Your task to perform on an android device: turn on wifi Image 0: 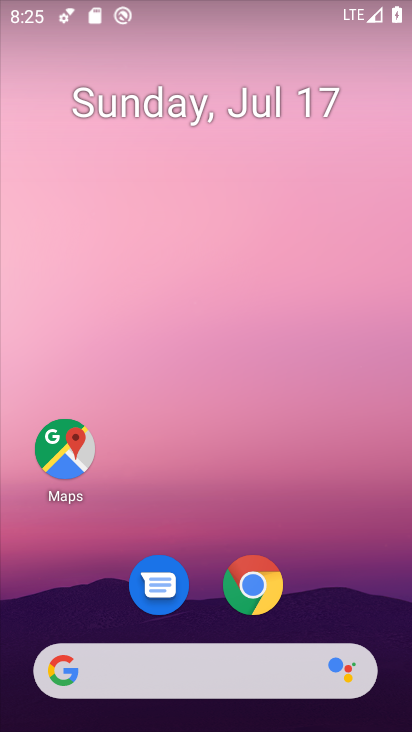
Step 0: drag from (306, 556) to (311, 2)
Your task to perform on an android device: turn on wifi Image 1: 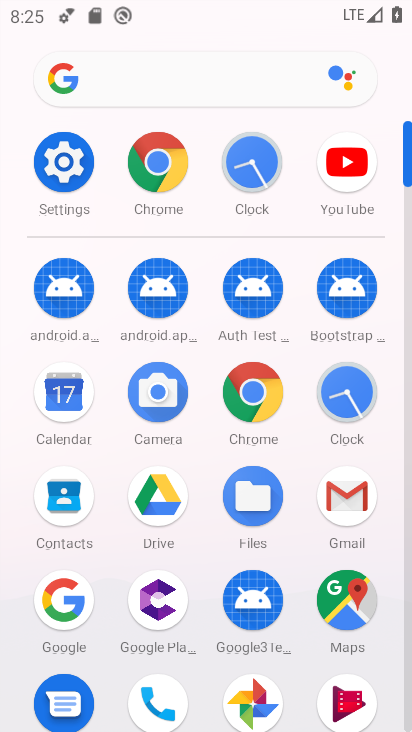
Step 1: click (69, 169)
Your task to perform on an android device: turn on wifi Image 2: 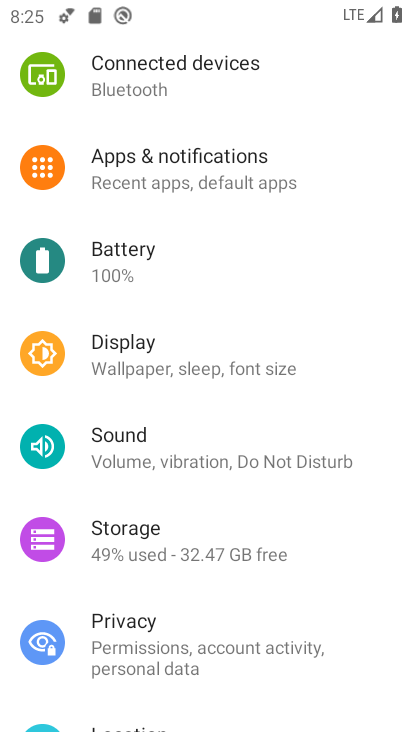
Step 2: drag from (239, 275) to (326, 609)
Your task to perform on an android device: turn on wifi Image 3: 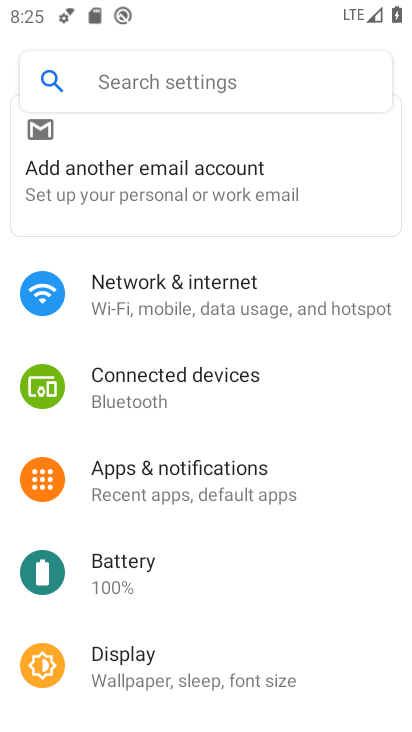
Step 3: click (239, 309)
Your task to perform on an android device: turn on wifi Image 4: 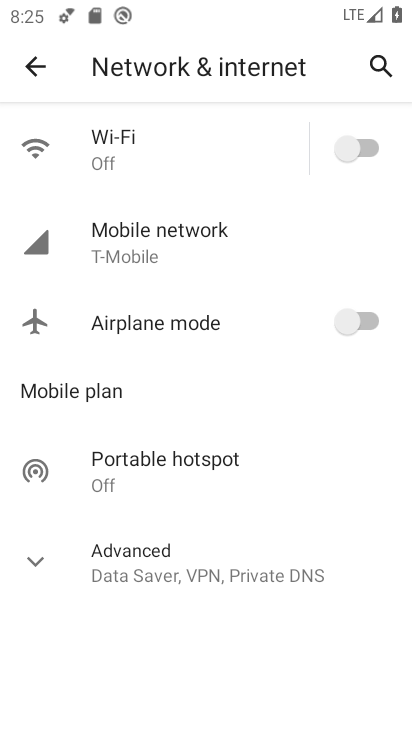
Step 4: click (215, 144)
Your task to perform on an android device: turn on wifi Image 5: 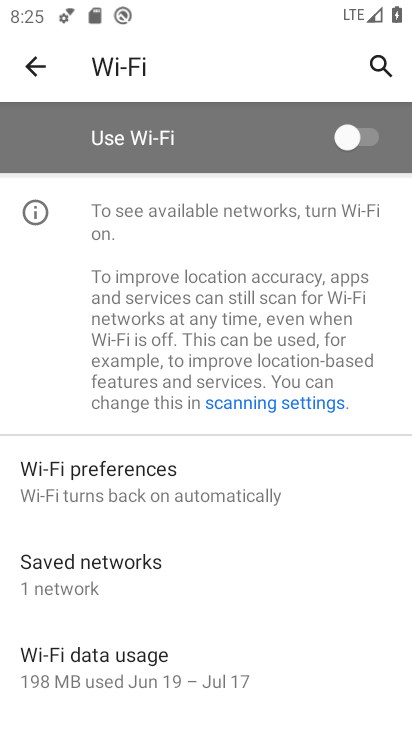
Step 5: click (351, 130)
Your task to perform on an android device: turn on wifi Image 6: 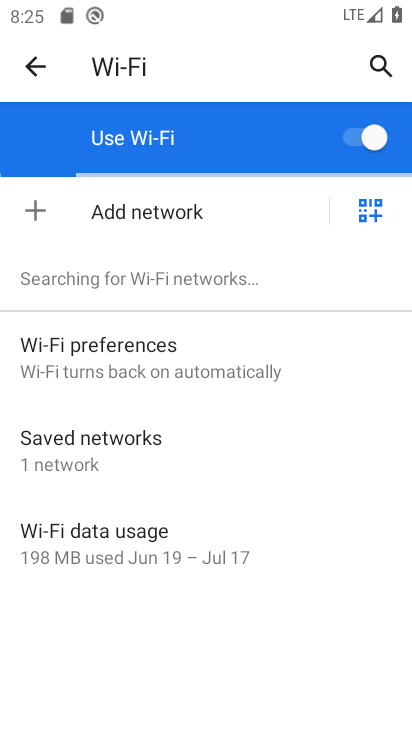
Step 6: task complete